Your task to perform on an android device: find photos in the google photos app Image 0: 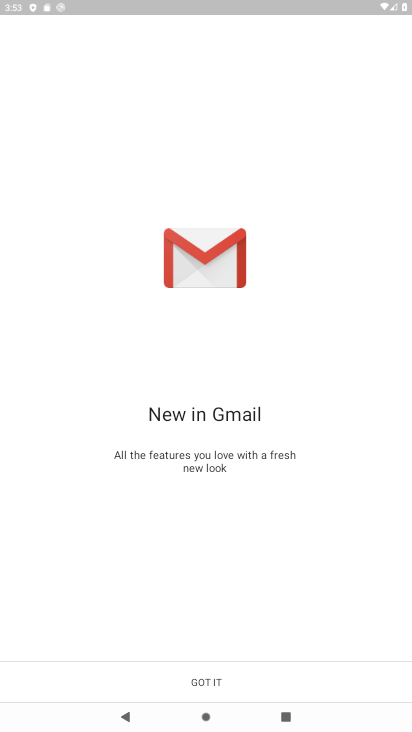
Step 0: press home button
Your task to perform on an android device: find photos in the google photos app Image 1: 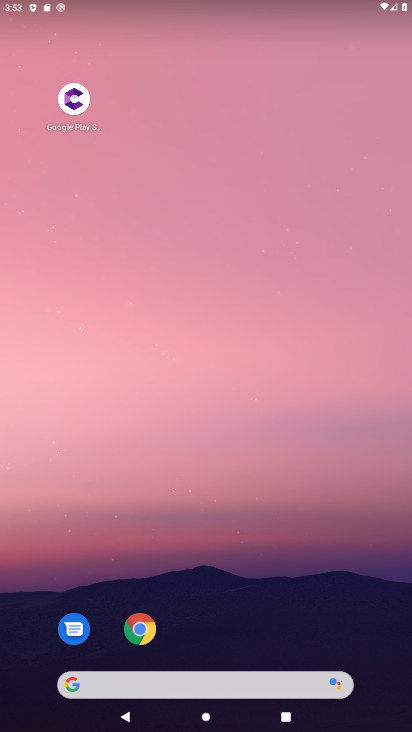
Step 1: drag from (210, 630) to (161, 157)
Your task to perform on an android device: find photos in the google photos app Image 2: 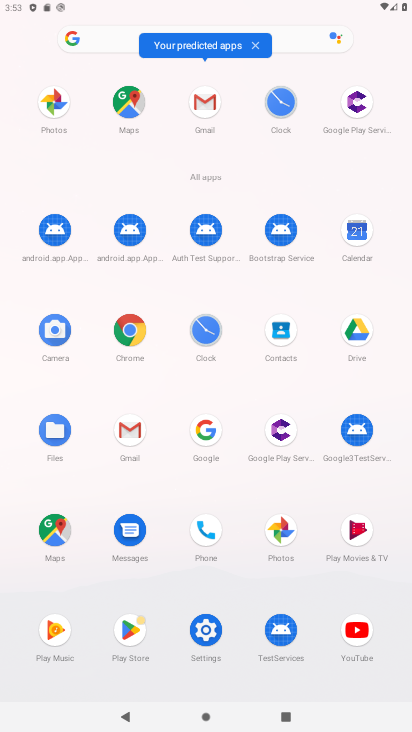
Step 2: click (287, 541)
Your task to perform on an android device: find photos in the google photos app Image 3: 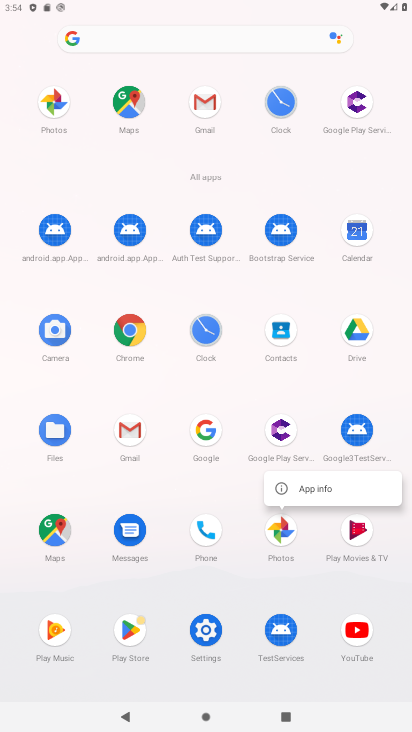
Step 3: click (290, 537)
Your task to perform on an android device: find photos in the google photos app Image 4: 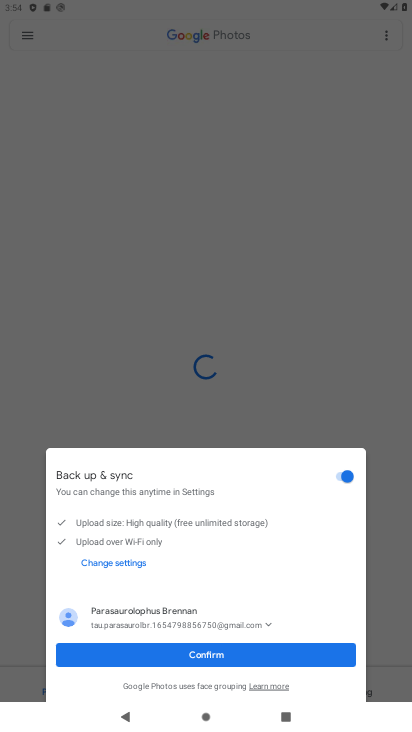
Step 4: click (272, 656)
Your task to perform on an android device: find photos in the google photos app Image 5: 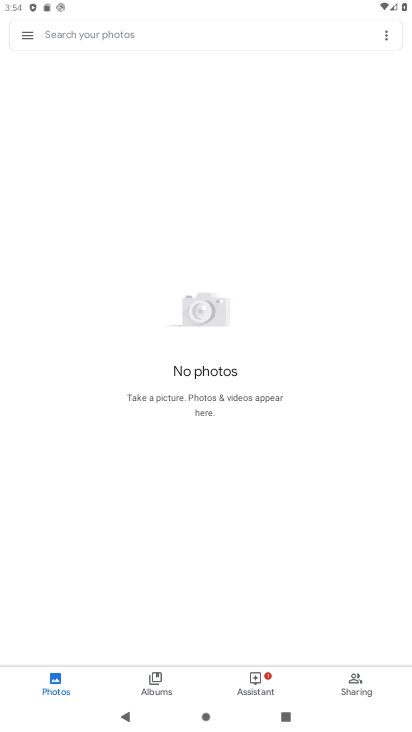
Step 5: click (82, 45)
Your task to perform on an android device: find photos in the google photos app Image 6: 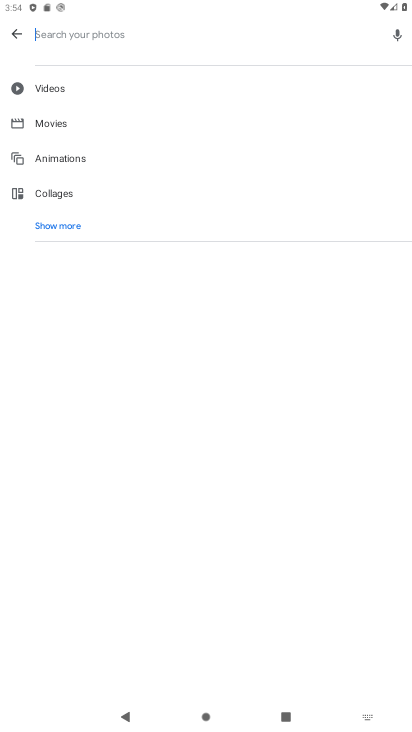
Step 6: click (96, 37)
Your task to perform on an android device: find photos in the google photos app Image 7: 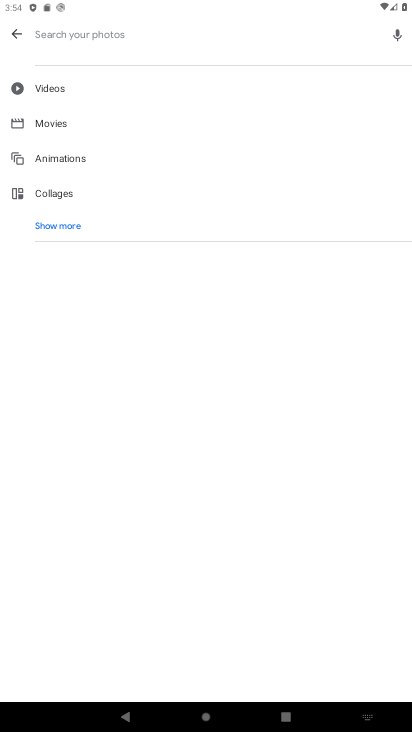
Step 7: type "aa"
Your task to perform on an android device: find photos in the google photos app Image 8: 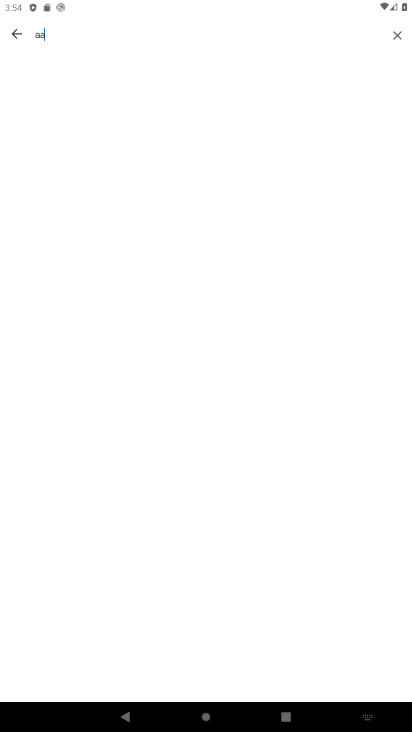
Step 8: task complete